Your task to perform on an android device: open a new tab in the chrome app Image 0: 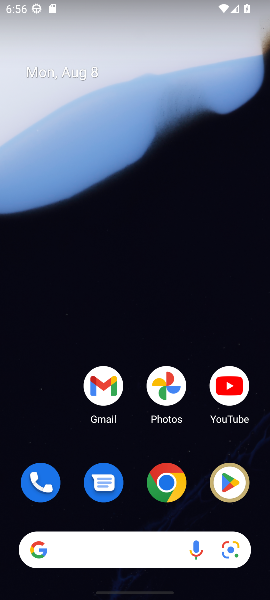
Step 0: click (51, 103)
Your task to perform on an android device: open a new tab in the chrome app Image 1: 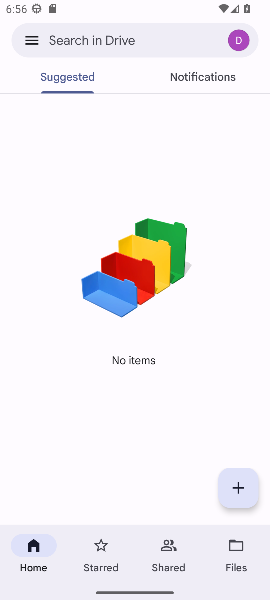
Step 1: press home button
Your task to perform on an android device: open a new tab in the chrome app Image 2: 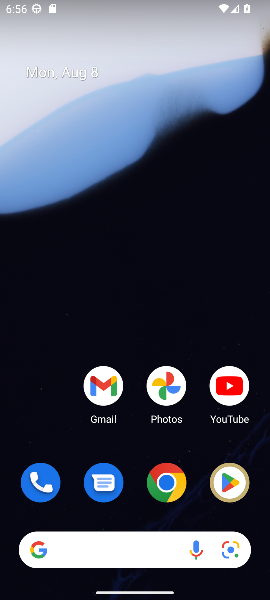
Step 2: drag from (136, 512) to (198, 21)
Your task to perform on an android device: open a new tab in the chrome app Image 3: 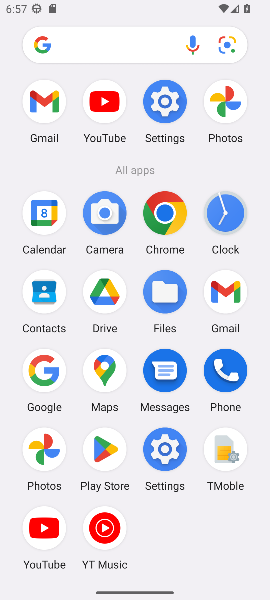
Step 3: click (170, 219)
Your task to perform on an android device: open a new tab in the chrome app Image 4: 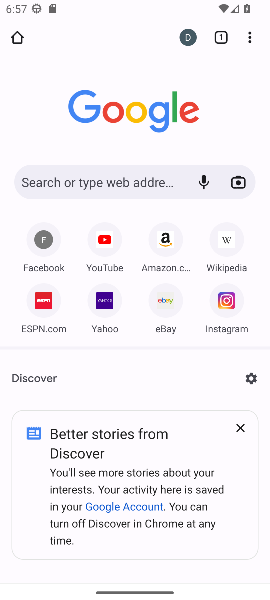
Step 4: task complete